Your task to perform on an android device: set the timer Image 0: 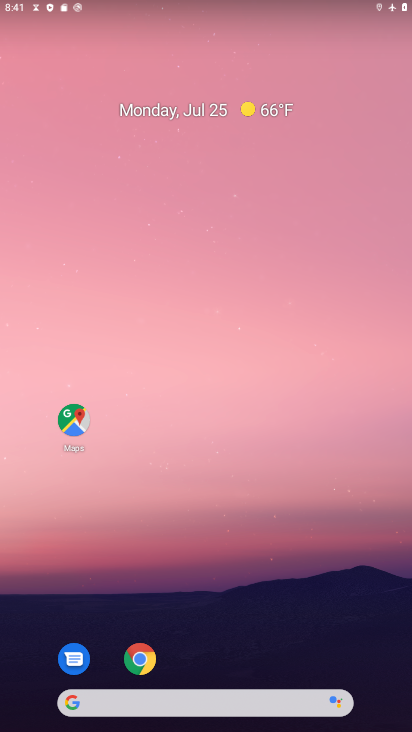
Step 0: drag from (232, 722) to (85, 23)
Your task to perform on an android device: set the timer Image 1: 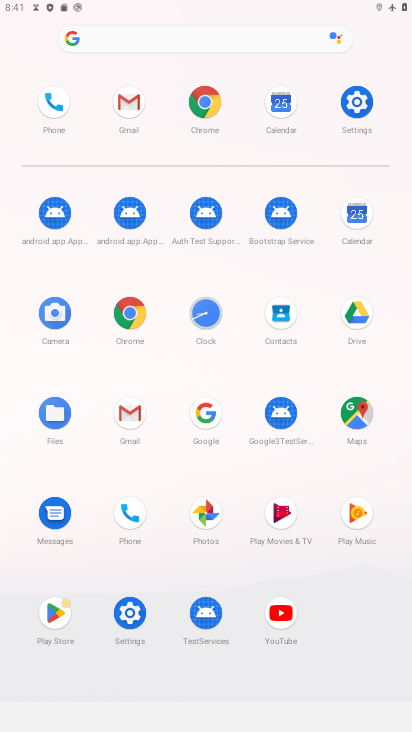
Step 1: click (199, 314)
Your task to perform on an android device: set the timer Image 2: 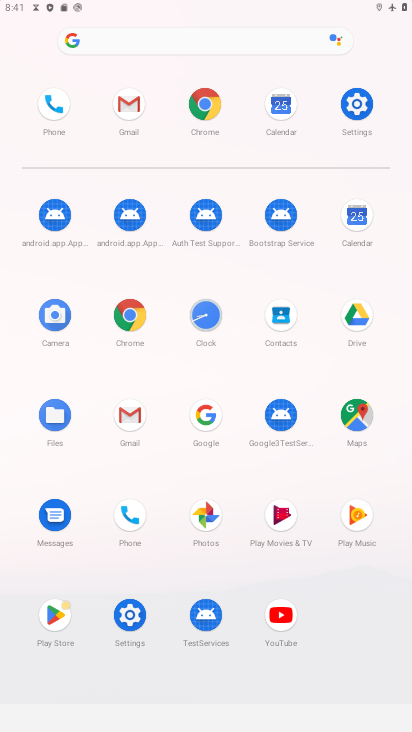
Step 2: click (203, 322)
Your task to perform on an android device: set the timer Image 3: 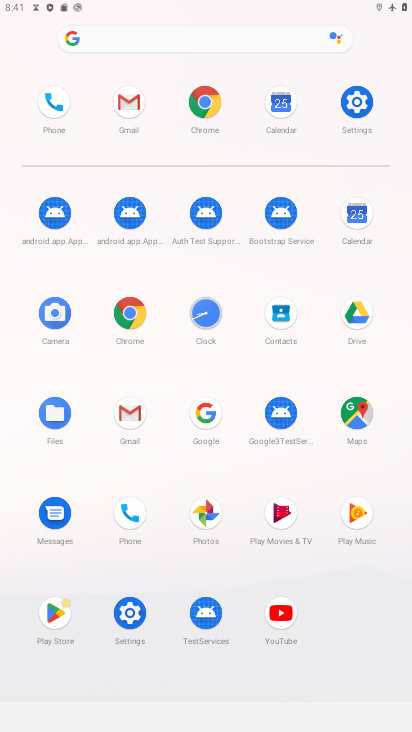
Step 3: click (197, 319)
Your task to perform on an android device: set the timer Image 4: 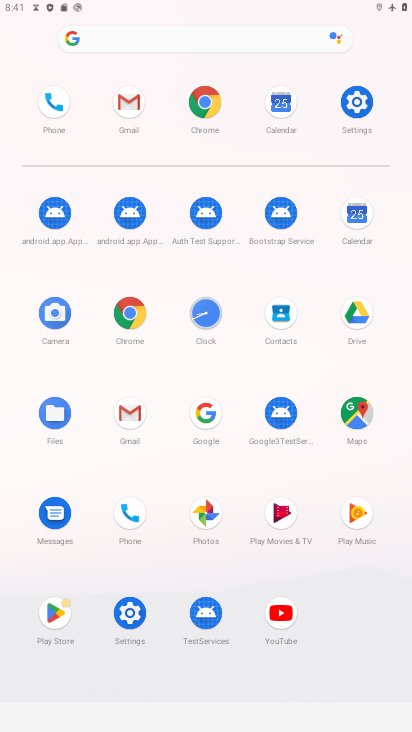
Step 4: click (198, 315)
Your task to perform on an android device: set the timer Image 5: 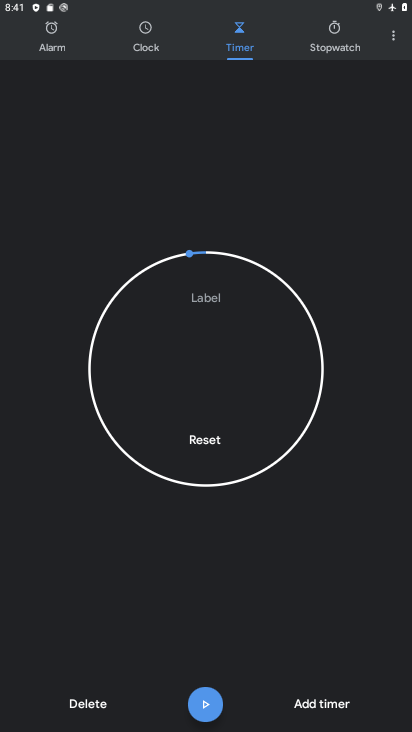
Step 5: click (208, 316)
Your task to perform on an android device: set the timer Image 6: 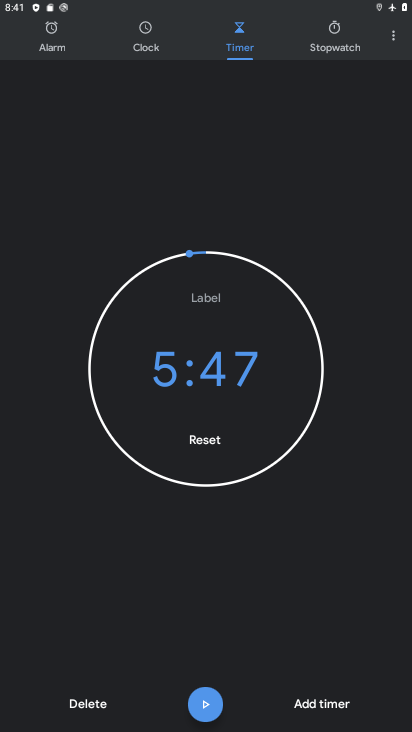
Step 6: click (208, 316)
Your task to perform on an android device: set the timer Image 7: 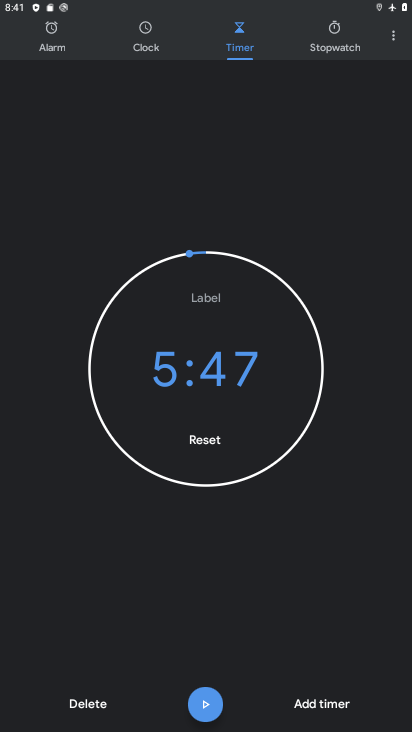
Step 7: click (208, 316)
Your task to perform on an android device: set the timer Image 8: 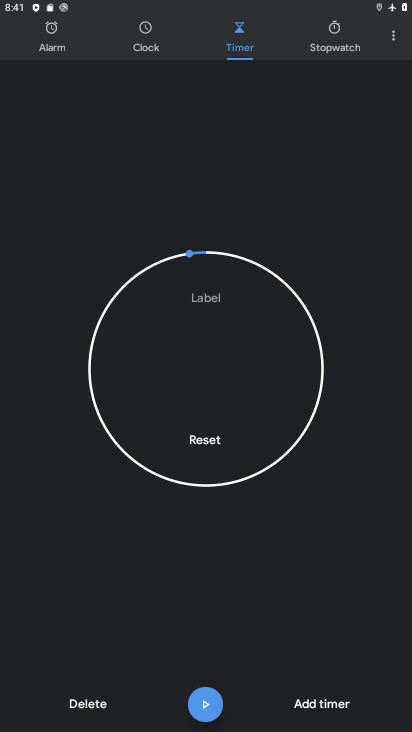
Step 8: click (197, 695)
Your task to perform on an android device: set the timer Image 9: 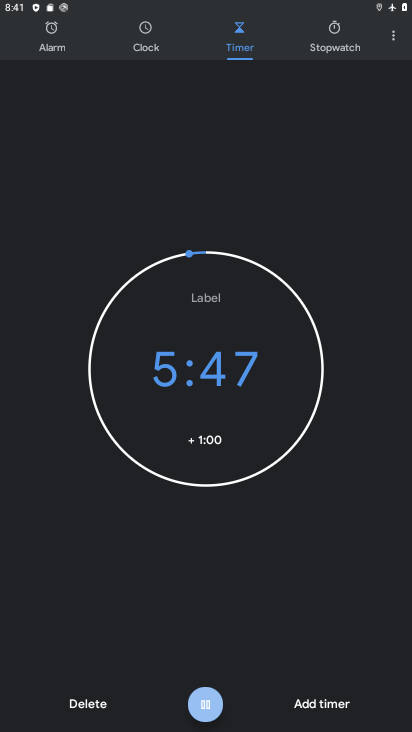
Step 9: click (196, 697)
Your task to perform on an android device: set the timer Image 10: 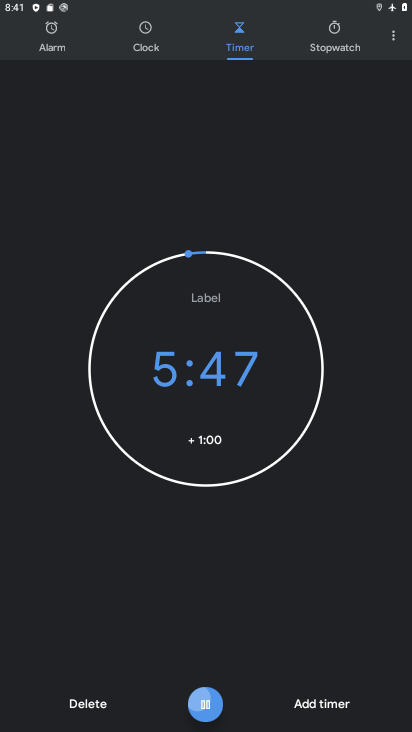
Step 10: click (196, 697)
Your task to perform on an android device: set the timer Image 11: 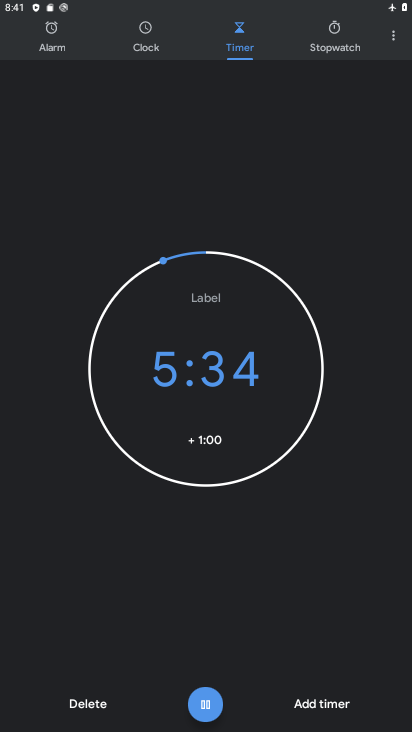
Step 11: click (203, 700)
Your task to perform on an android device: set the timer Image 12: 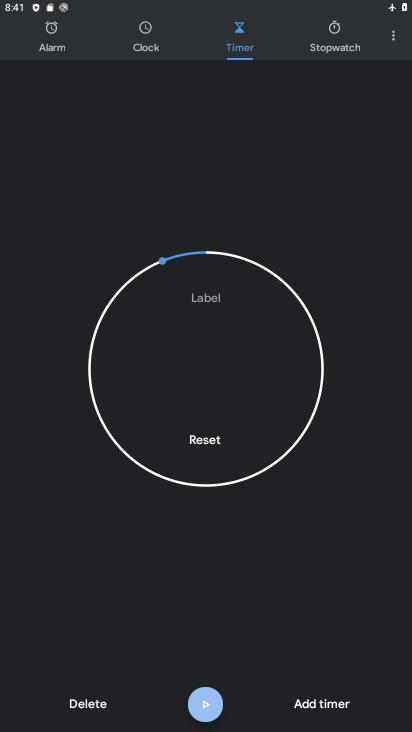
Step 12: click (203, 700)
Your task to perform on an android device: set the timer Image 13: 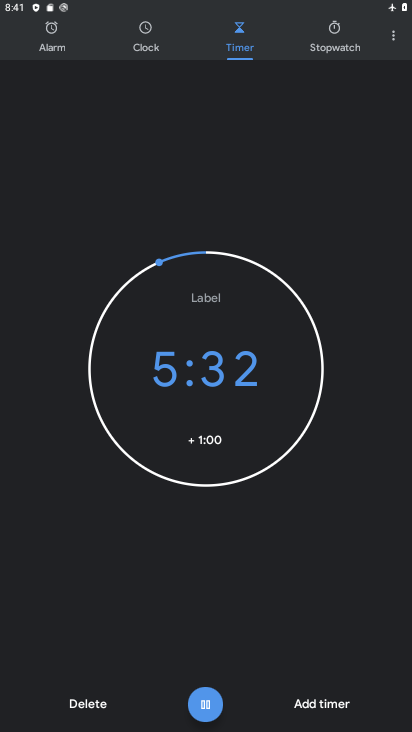
Step 13: click (211, 706)
Your task to perform on an android device: set the timer Image 14: 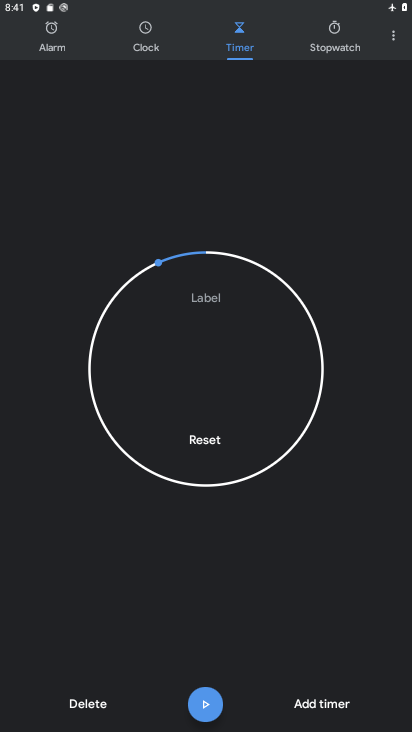
Step 14: task complete